Your task to perform on an android device: open a new tab in the chrome app Image 0: 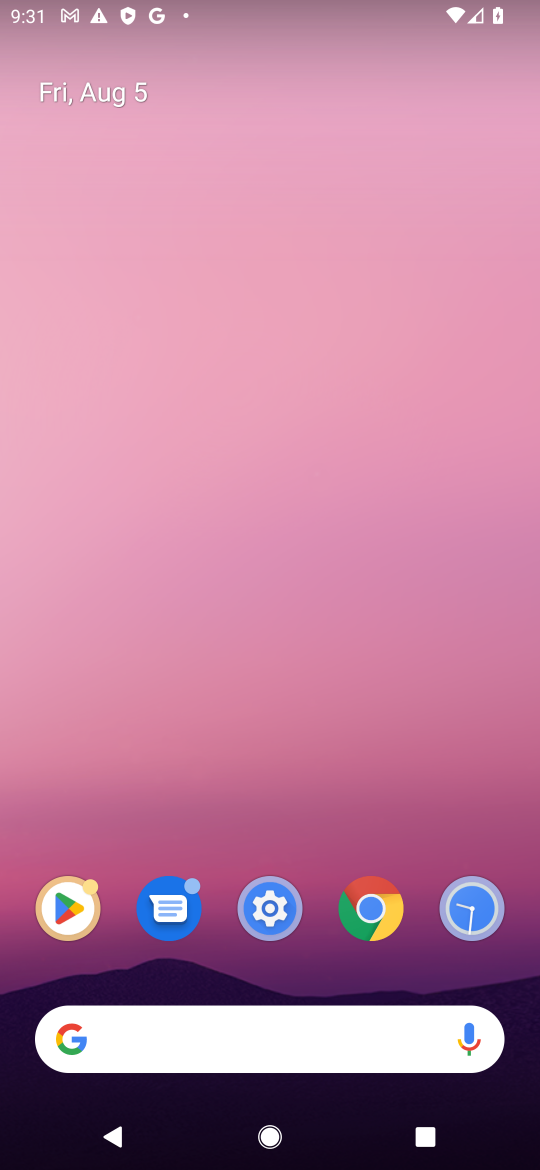
Step 0: click (374, 910)
Your task to perform on an android device: open a new tab in the chrome app Image 1: 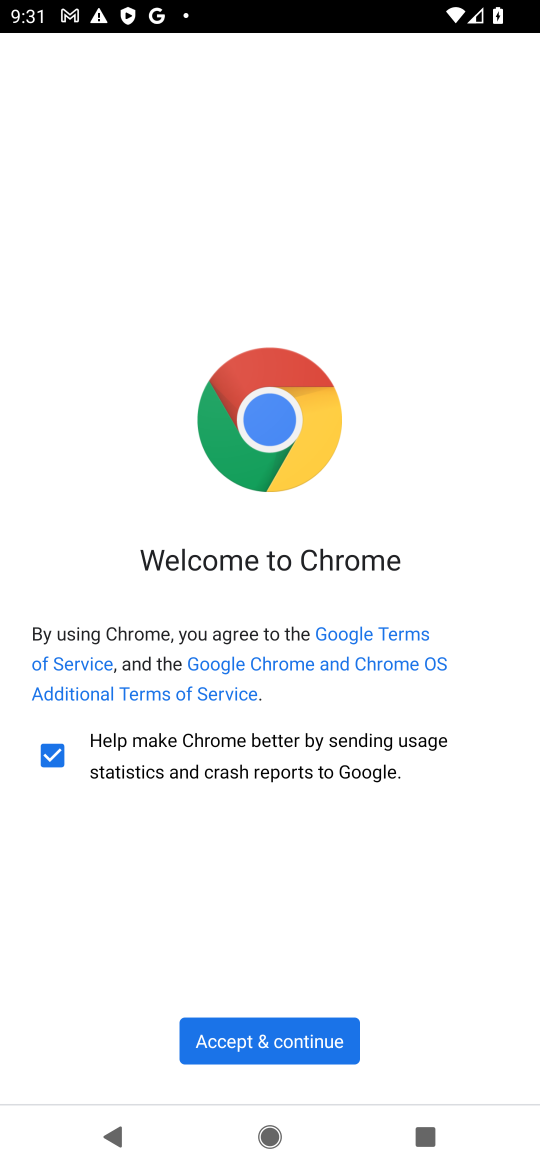
Step 1: click (283, 1044)
Your task to perform on an android device: open a new tab in the chrome app Image 2: 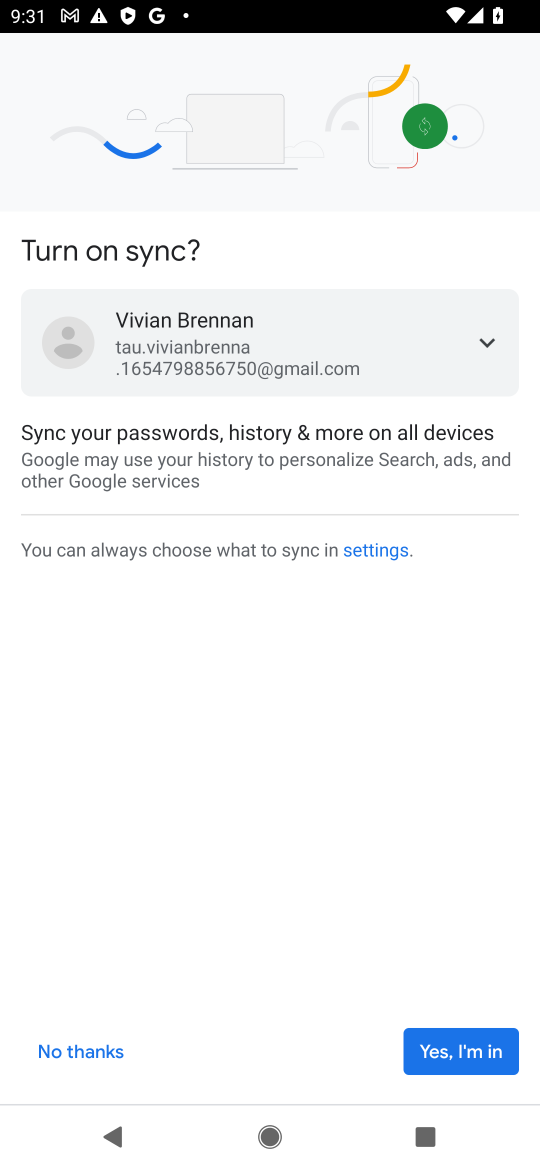
Step 2: click (443, 1042)
Your task to perform on an android device: open a new tab in the chrome app Image 3: 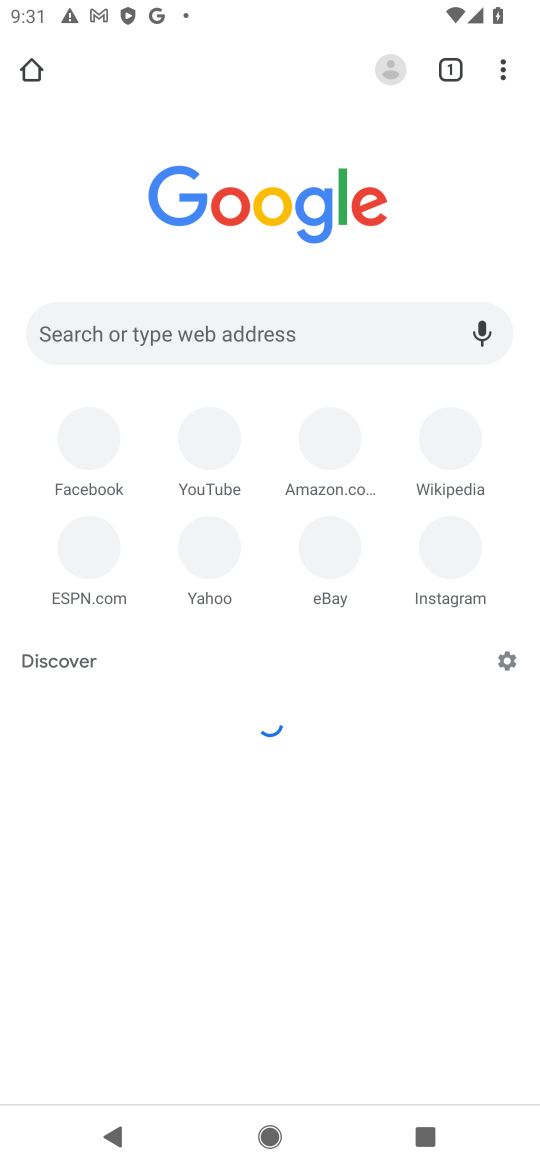
Step 3: click (466, 1050)
Your task to perform on an android device: open a new tab in the chrome app Image 4: 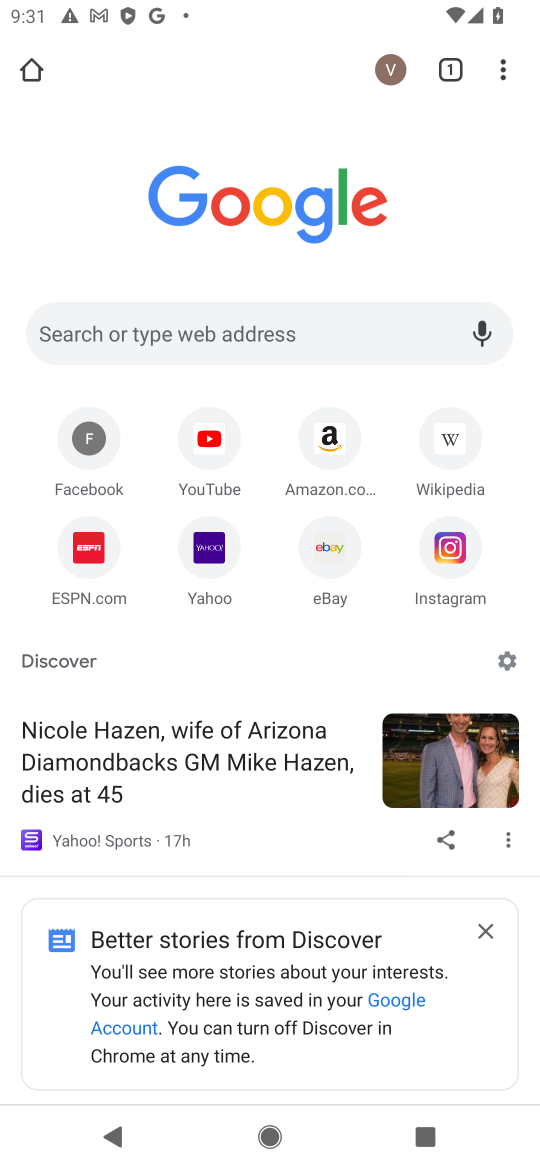
Step 4: click (508, 63)
Your task to perform on an android device: open a new tab in the chrome app Image 5: 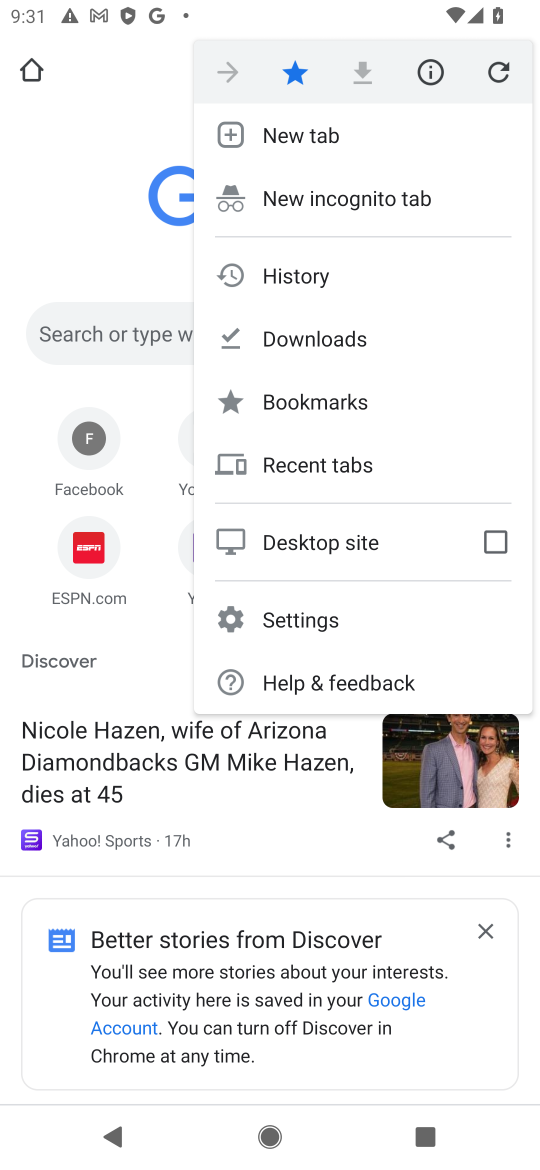
Step 5: click (292, 129)
Your task to perform on an android device: open a new tab in the chrome app Image 6: 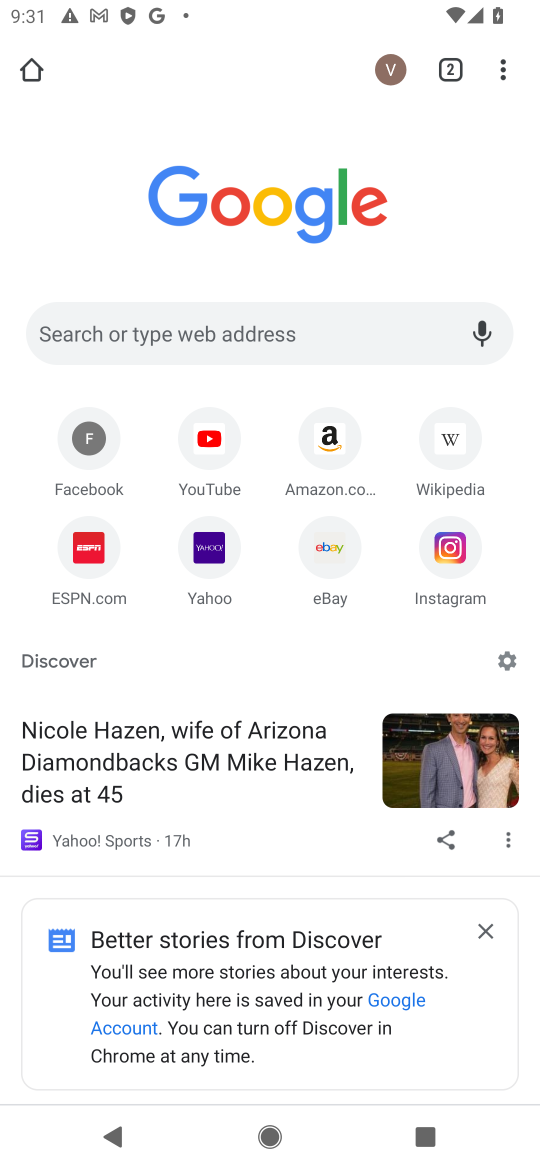
Step 6: task complete